Your task to perform on an android device: Search for pizza restaurants on Maps Image 0: 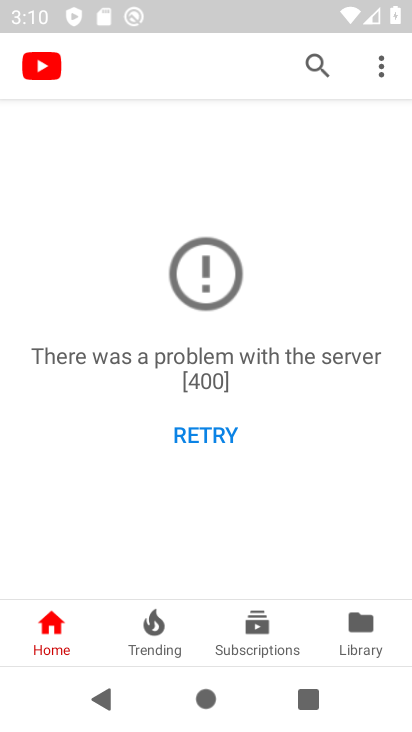
Step 0: press home button
Your task to perform on an android device: Search for pizza restaurants on Maps Image 1: 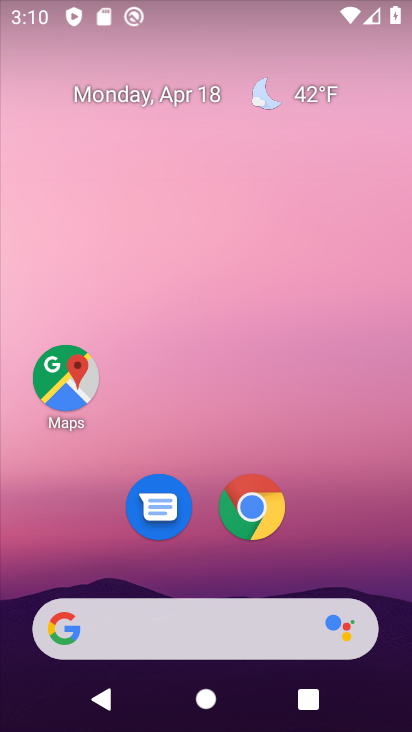
Step 1: click (51, 395)
Your task to perform on an android device: Search for pizza restaurants on Maps Image 2: 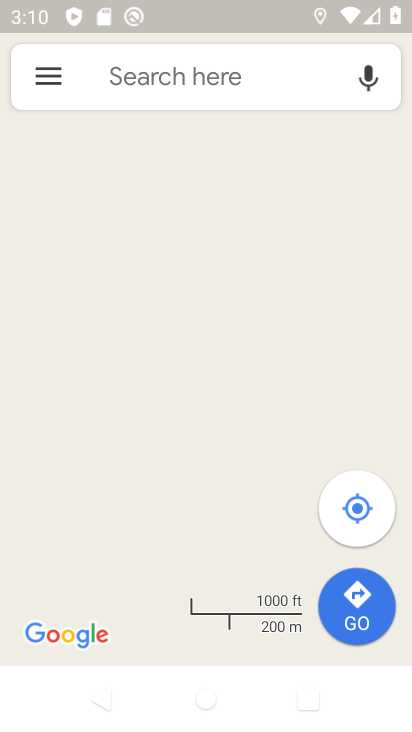
Step 2: click (151, 70)
Your task to perform on an android device: Search for pizza restaurants on Maps Image 3: 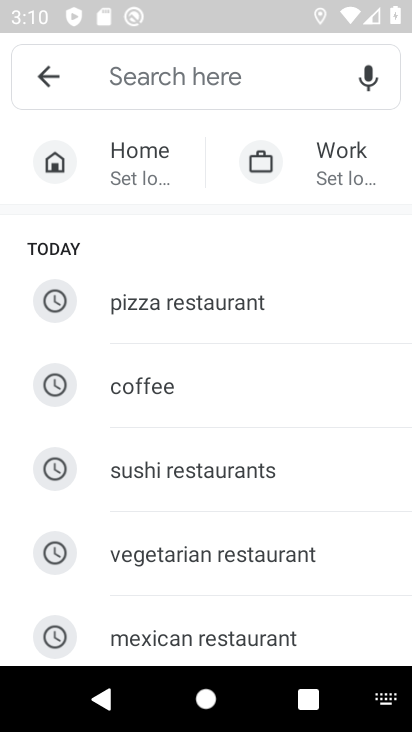
Step 3: type "pizza res"
Your task to perform on an android device: Search for pizza restaurants on Maps Image 4: 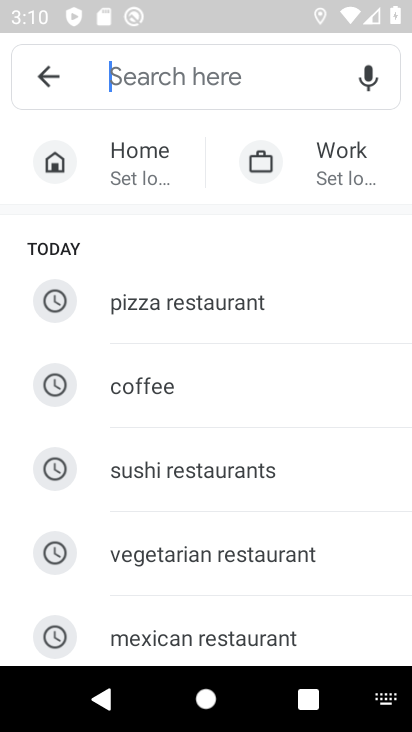
Step 4: click (208, 312)
Your task to perform on an android device: Search for pizza restaurants on Maps Image 5: 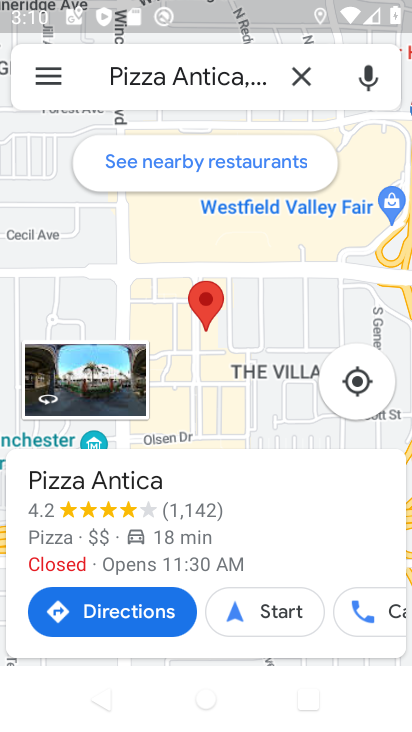
Step 5: task complete